Your task to perform on an android device: turn off sleep mode Image 0: 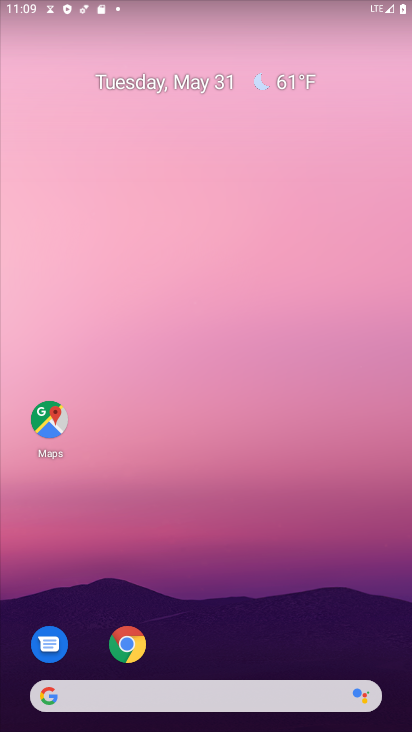
Step 0: drag from (220, 510) to (327, 44)
Your task to perform on an android device: turn off sleep mode Image 1: 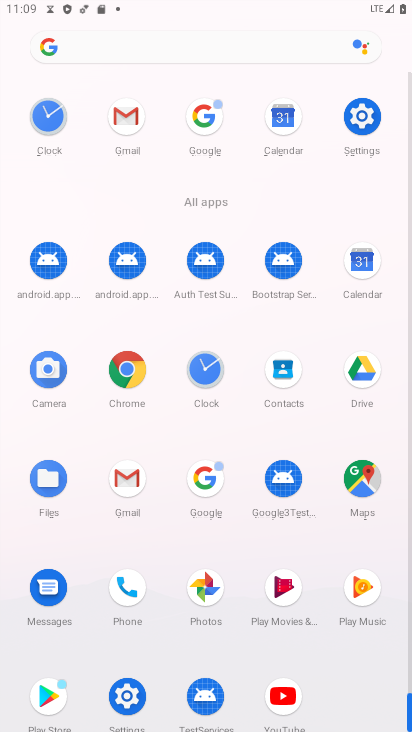
Step 1: click (365, 110)
Your task to perform on an android device: turn off sleep mode Image 2: 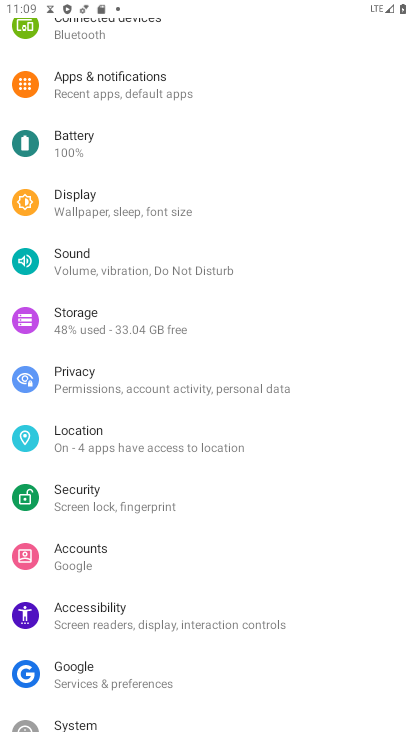
Step 2: drag from (217, 93) to (104, 642)
Your task to perform on an android device: turn off sleep mode Image 3: 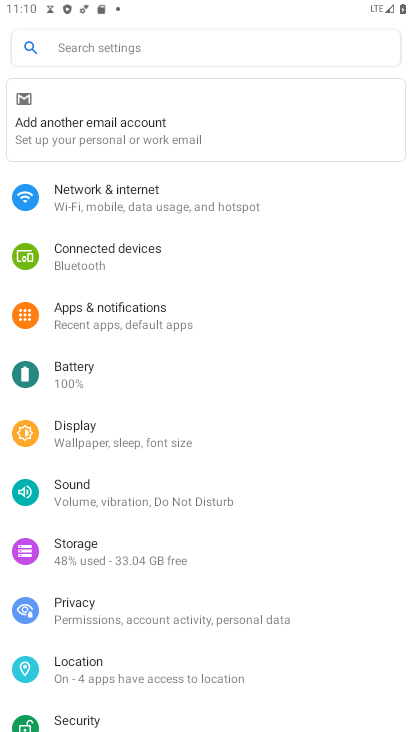
Step 3: click (203, 53)
Your task to perform on an android device: turn off sleep mode Image 4: 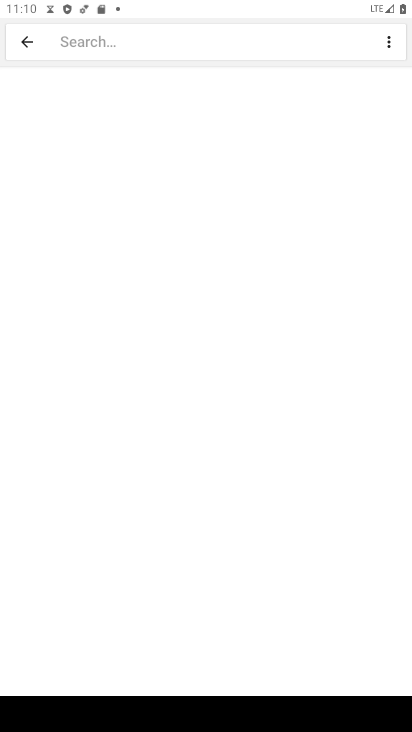
Step 4: type "sleep mode"
Your task to perform on an android device: turn off sleep mode Image 5: 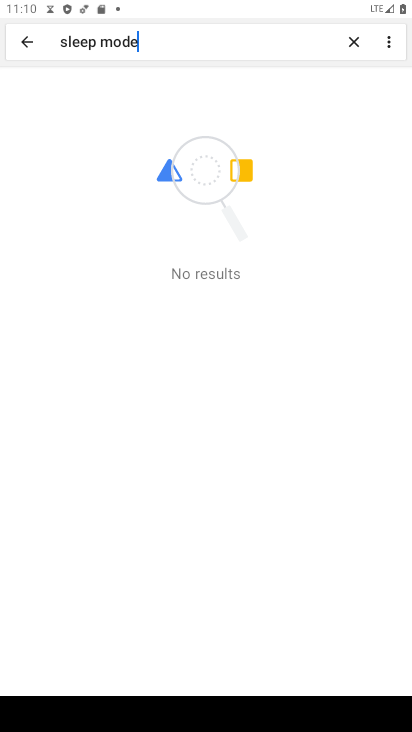
Step 5: task complete